Your task to perform on an android device: star an email in the gmail app Image 0: 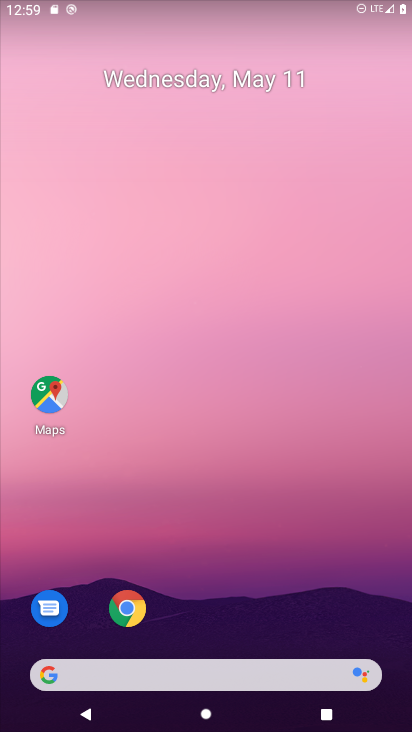
Step 0: drag from (268, 533) to (232, 22)
Your task to perform on an android device: star an email in the gmail app Image 1: 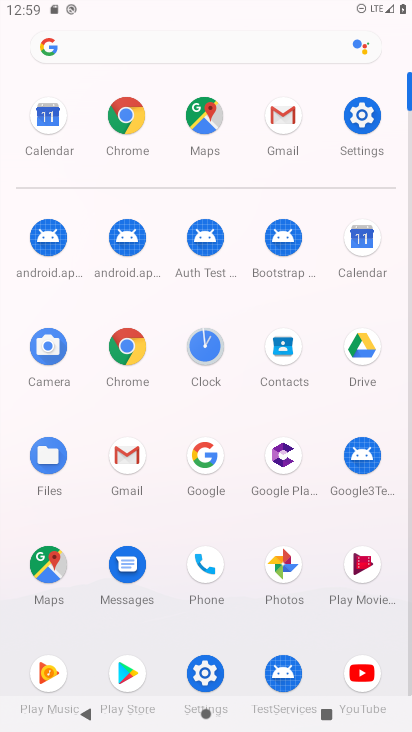
Step 1: click (269, 108)
Your task to perform on an android device: star an email in the gmail app Image 2: 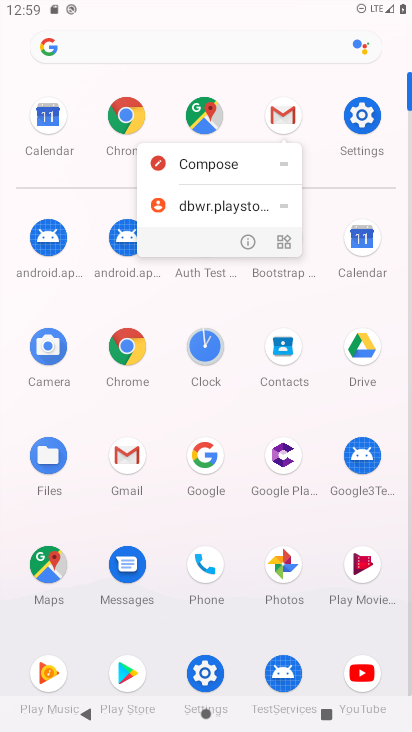
Step 2: click (280, 103)
Your task to perform on an android device: star an email in the gmail app Image 3: 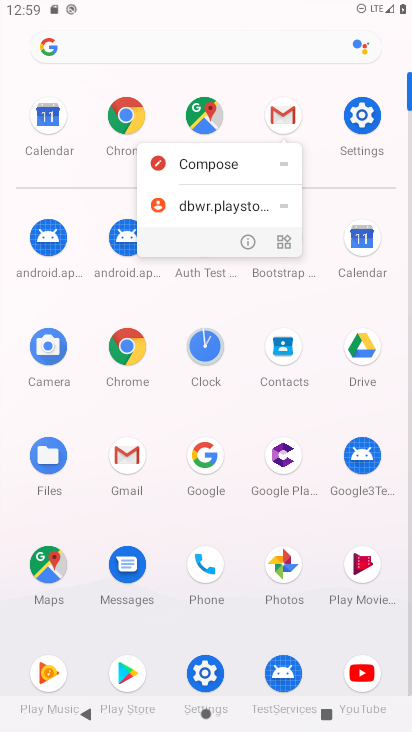
Step 3: click (281, 102)
Your task to perform on an android device: star an email in the gmail app Image 4: 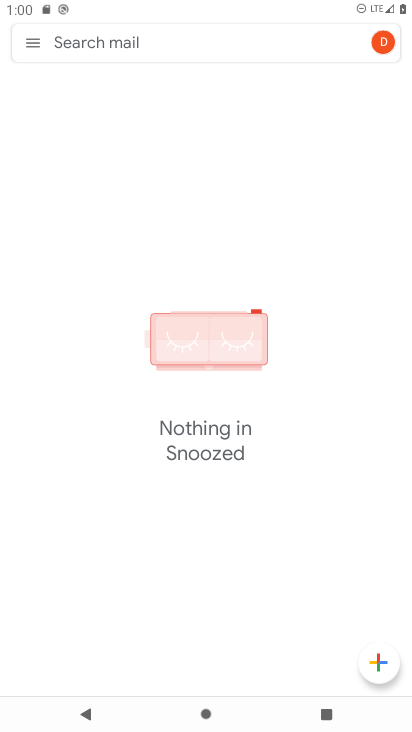
Step 4: click (36, 41)
Your task to perform on an android device: star an email in the gmail app Image 5: 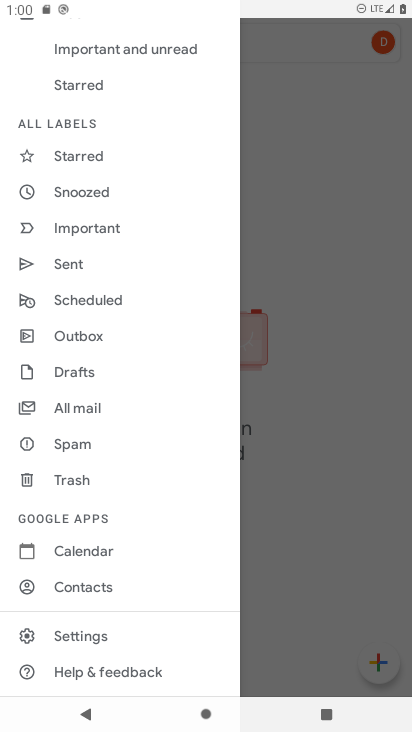
Step 5: click (99, 408)
Your task to perform on an android device: star an email in the gmail app Image 6: 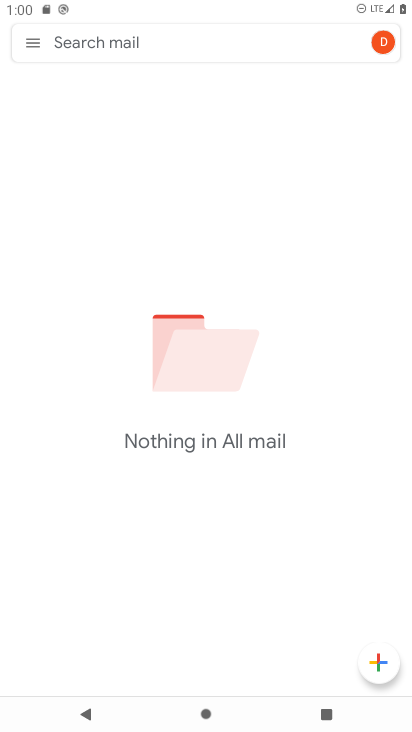
Step 6: task complete